Your task to perform on an android device: Is it going to rain today? Image 0: 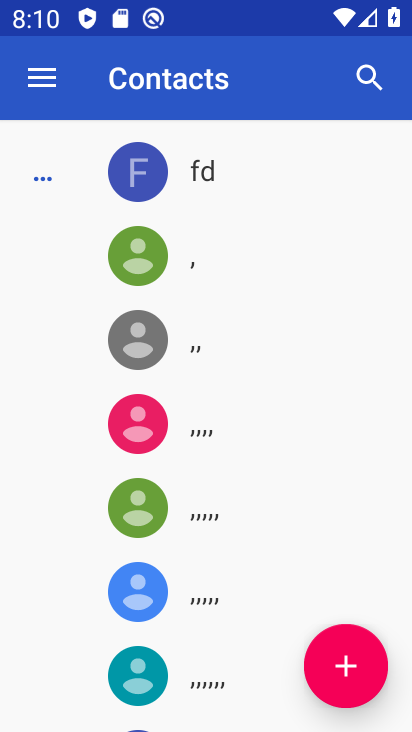
Step 0: press home button
Your task to perform on an android device: Is it going to rain today? Image 1: 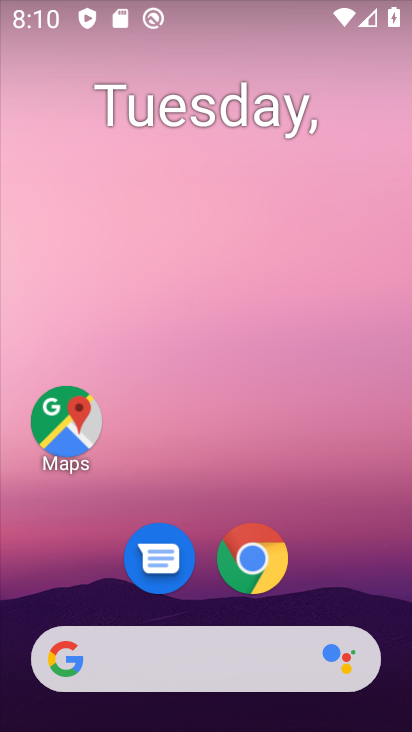
Step 1: drag from (202, 606) to (226, 253)
Your task to perform on an android device: Is it going to rain today? Image 2: 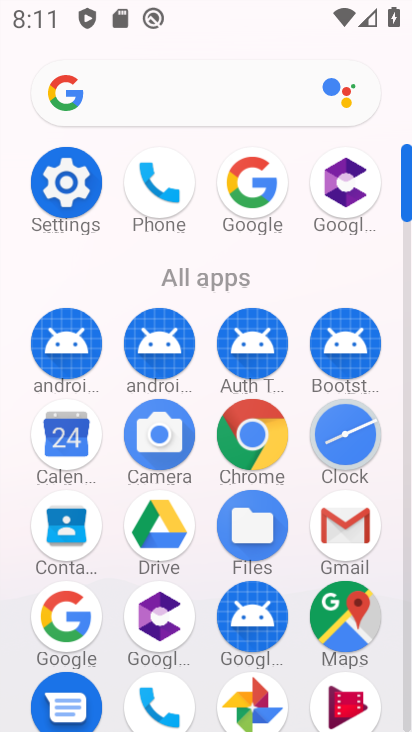
Step 2: click (246, 193)
Your task to perform on an android device: Is it going to rain today? Image 3: 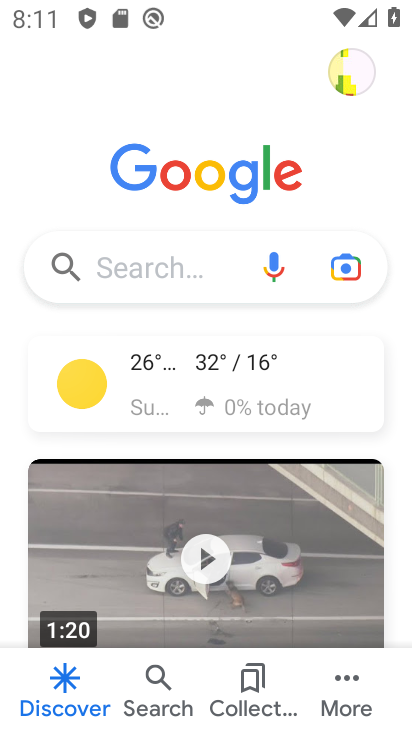
Step 3: click (183, 382)
Your task to perform on an android device: Is it going to rain today? Image 4: 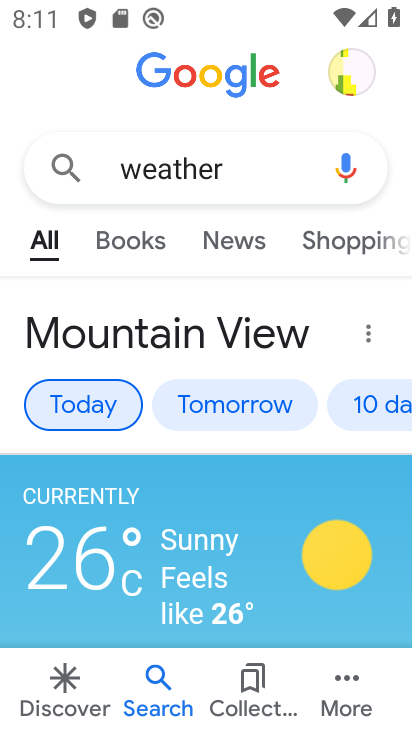
Step 4: task complete